Your task to perform on an android device: toggle pop-ups in chrome Image 0: 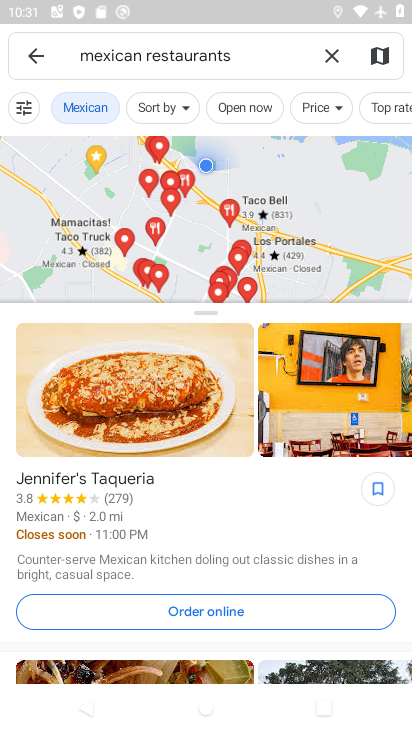
Step 0: press home button
Your task to perform on an android device: toggle pop-ups in chrome Image 1: 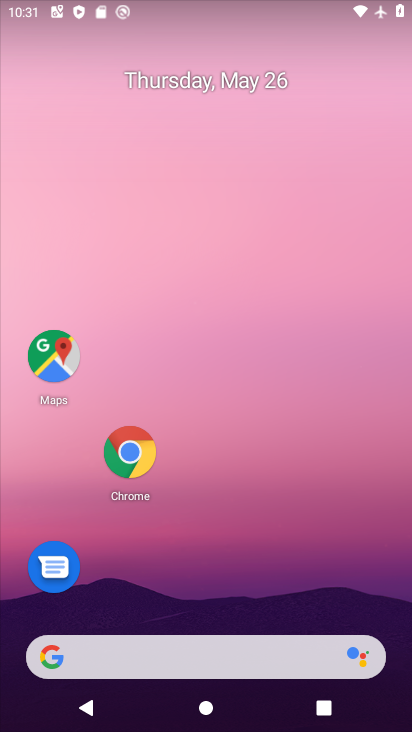
Step 1: click (133, 441)
Your task to perform on an android device: toggle pop-ups in chrome Image 2: 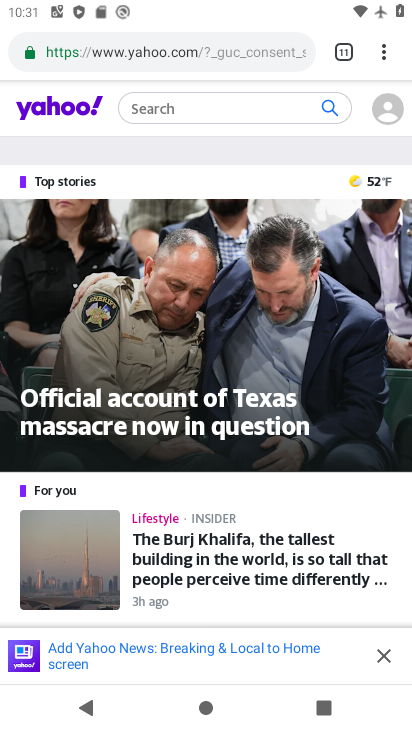
Step 2: drag from (386, 55) to (258, 596)
Your task to perform on an android device: toggle pop-ups in chrome Image 3: 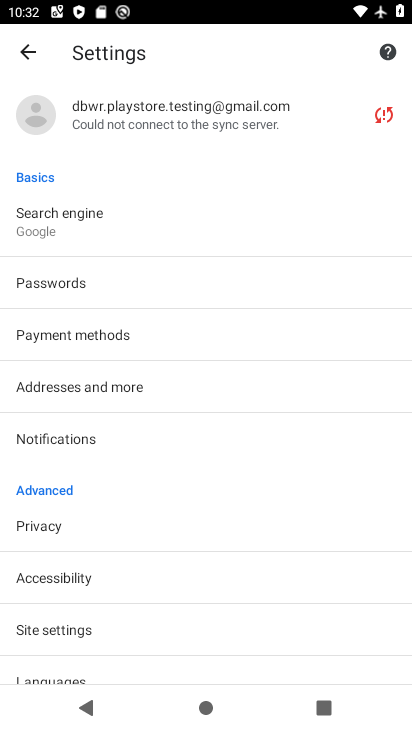
Step 3: drag from (190, 611) to (274, 258)
Your task to perform on an android device: toggle pop-ups in chrome Image 4: 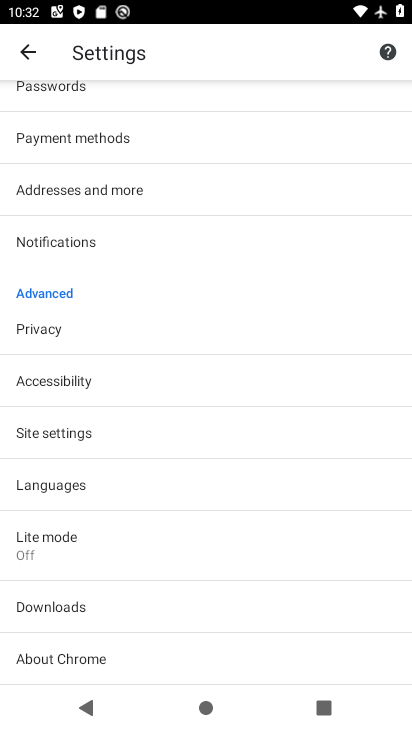
Step 4: click (94, 438)
Your task to perform on an android device: toggle pop-ups in chrome Image 5: 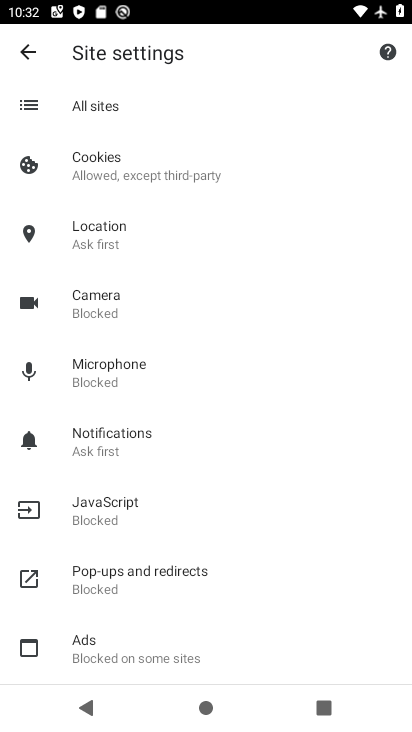
Step 5: click (115, 573)
Your task to perform on an android device: toggle pop-ups in chrome Image 6: 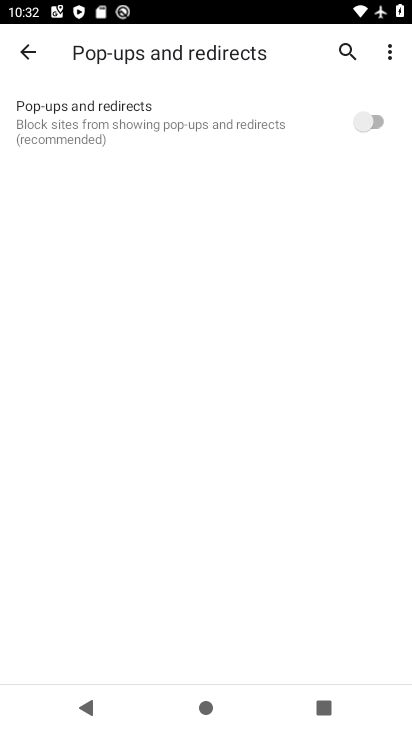
Step 6: click (377, 120)
Your task to perform on an android device: toggle pop-ups in chrome Image 7: 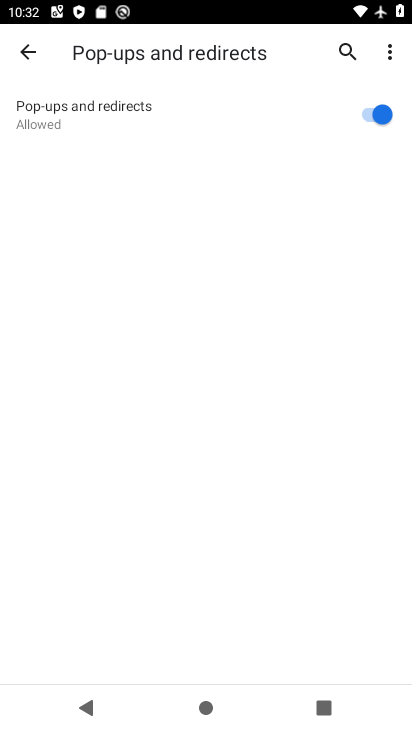
Step 7: task complete